Your task to perform on an android device: Open accessibility settings Image 0: 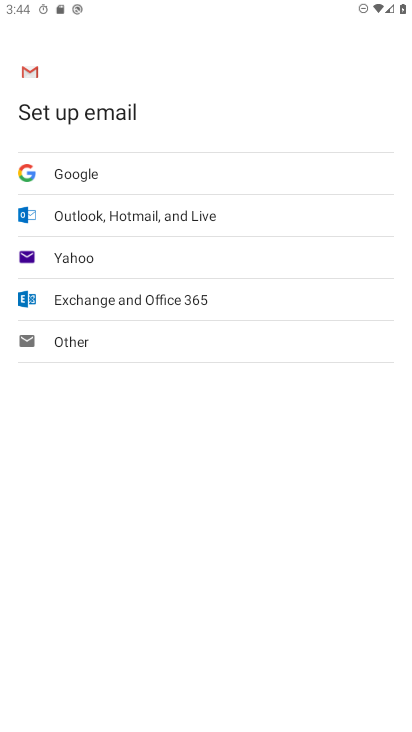
Step 0: press home button
Your task to perform on an android device: Open accessibility settings Image 1: 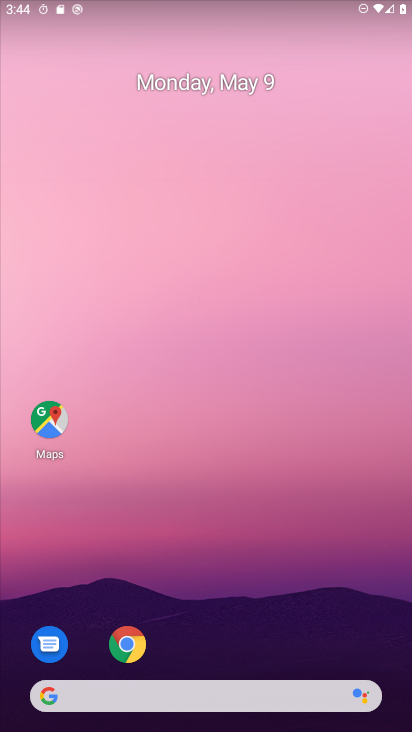
Step 1: drag from (252, 604) to (242, 90)
Your task to perform on an android device: Open accessibility settings Image 2: 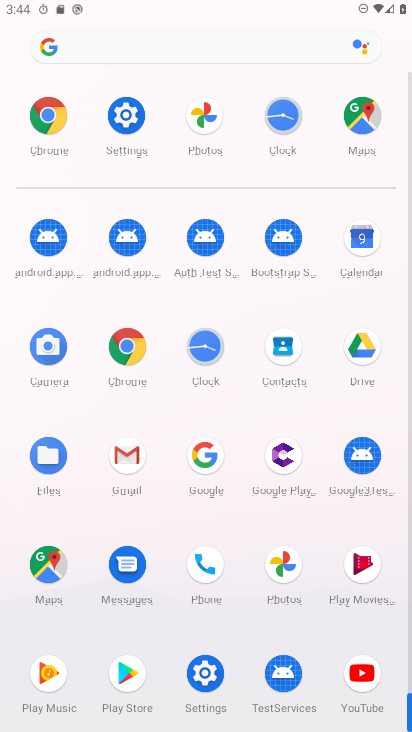
Step 2: click (202, 692)
Your task to perform on an android device: Open accessibility settings Image 3: 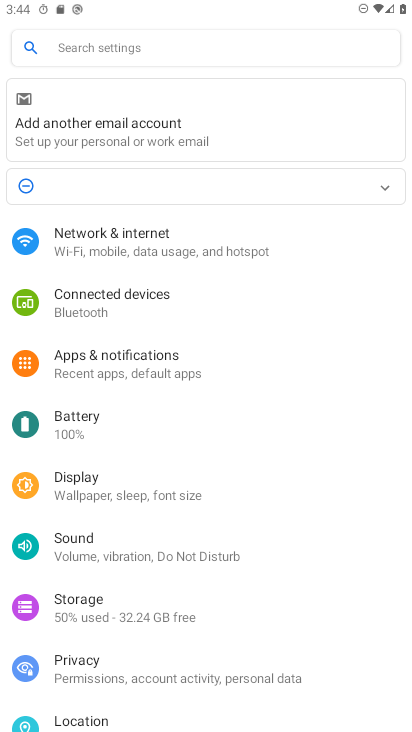
Step 3: drag from (208, 568) to (214, 279)
Your task to perform on an android device: Open accessibility settings Image 4: 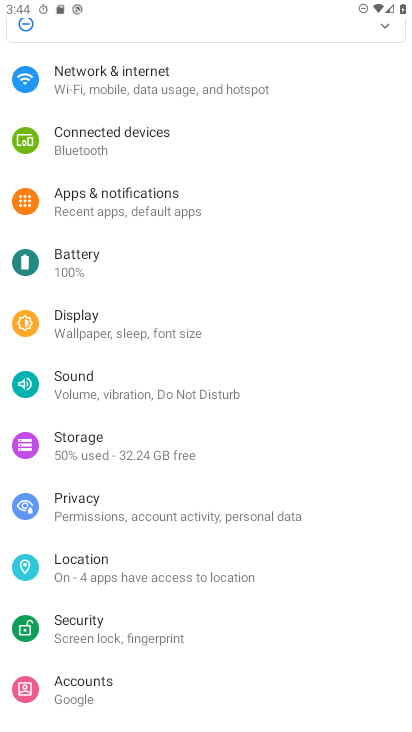
Step 4: drag from (126, 628) to (143, 362)
Your task to perform on an android device: Open accessibility settings Image 5: 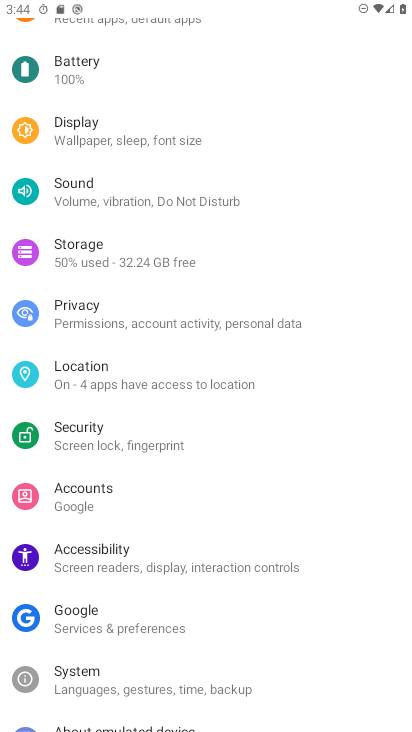
Step 5: click (102, 558)
Your task to perform on an android device: Open accessibility settings Image 6: 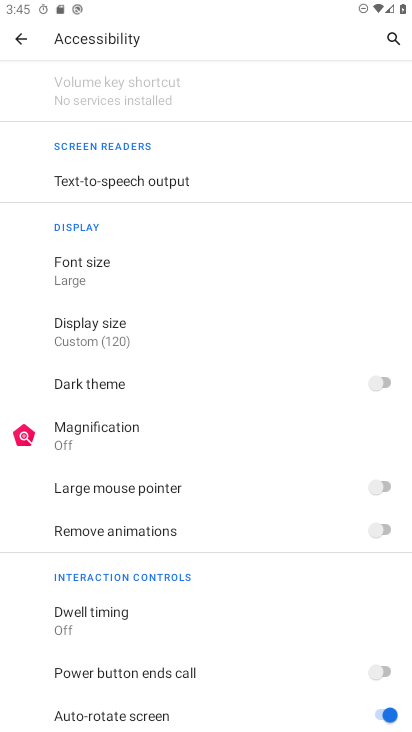
Step 6: task complete